Your task to perform on an android device: Go to Google maps Image 0: 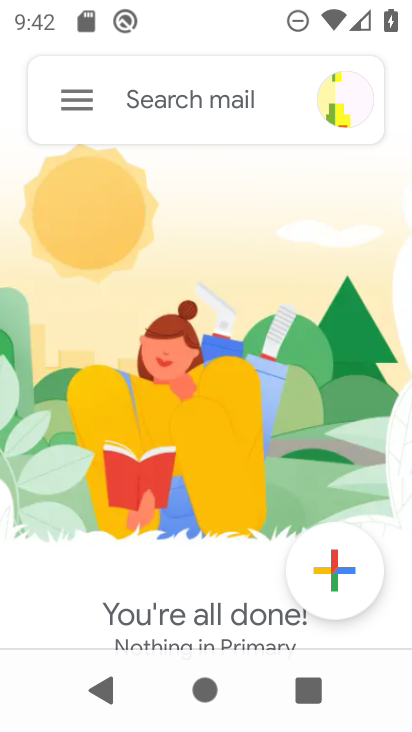
Step 0: click (370, 15)
Your task to perform on an android device: Go to Google maps Image 1: 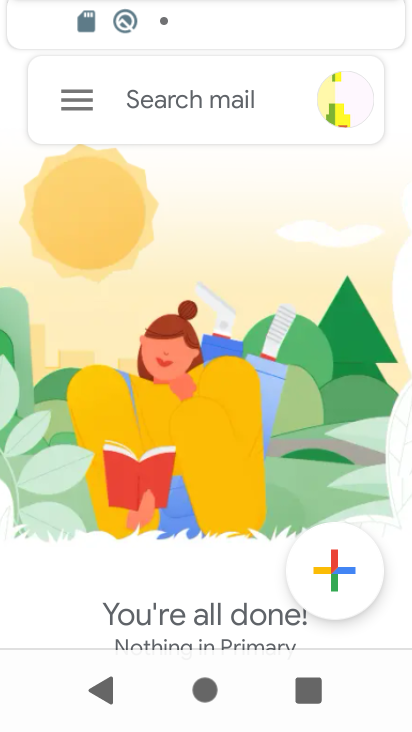
Step 1: press home button
Your task to perform on an android device: Go to Google maps Image 2: 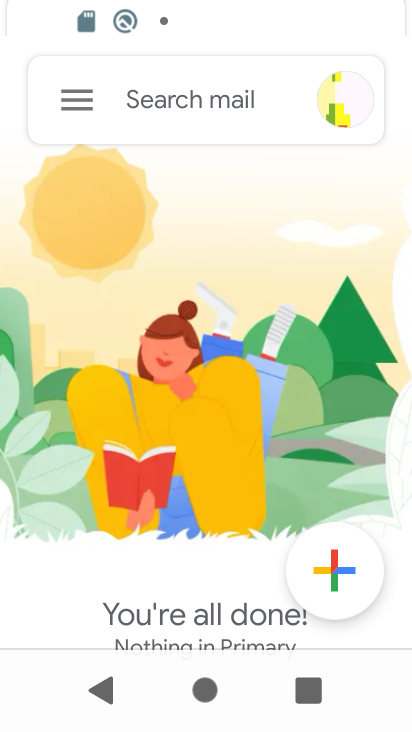
Step 2: drag from (370, 15) to (366, 659)
Your task to perform on an android device: Go to Google maps Image 3: 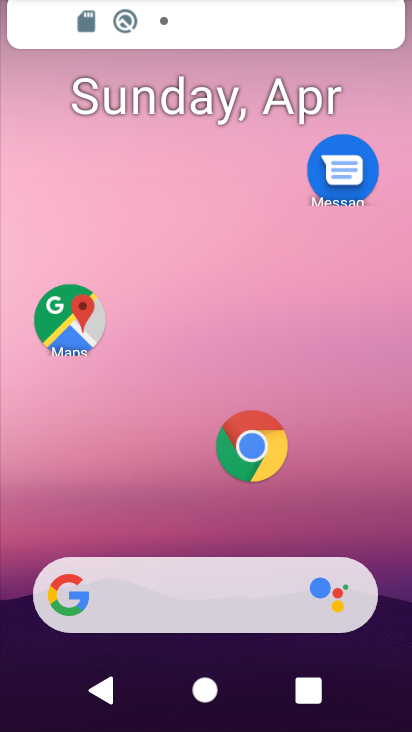
Step 3: drag from (240, 364) to (300, 211)
Your task to perform on an android device: Go to Google maps Image 4: 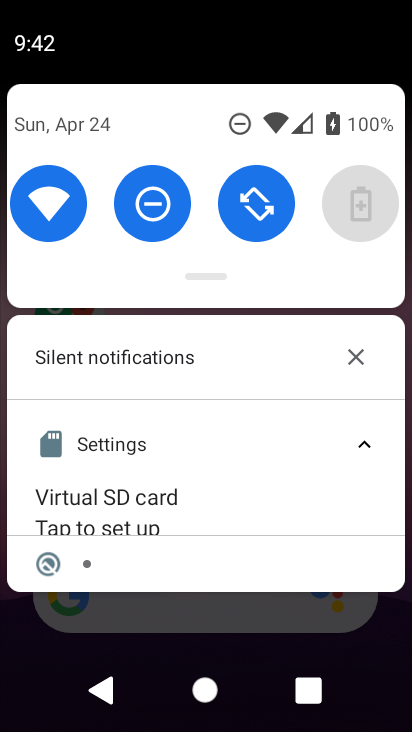
Step 4: press back button
Your task to perform on an android device: Go to Google maps Image 5: 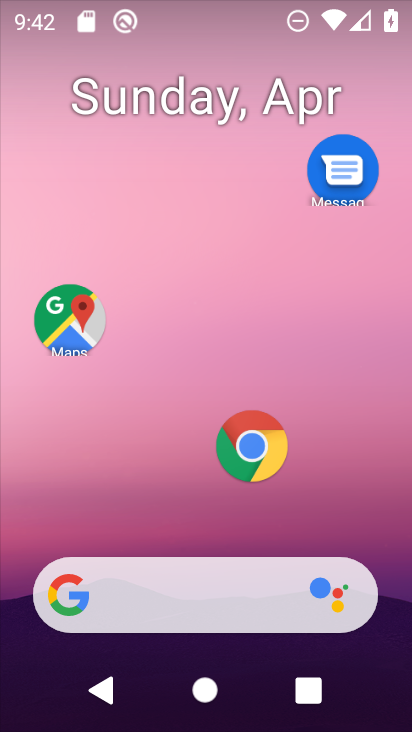
Step 5: click (74, 300)
Your task to perform on an android device: Go to Google maps Image 6: 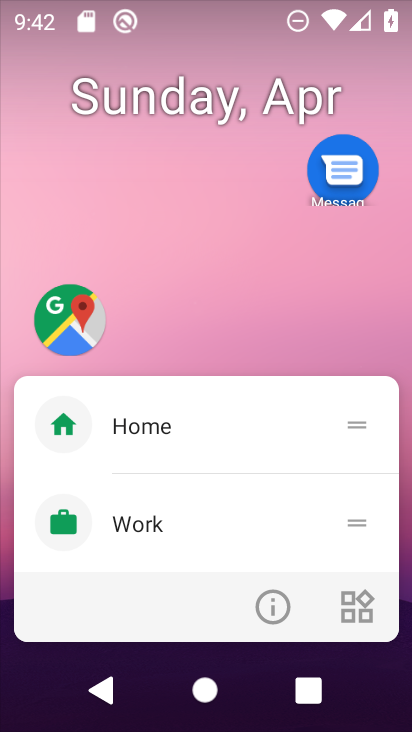
Step 6: click (270, 580)
Your task to perform on an android device: Go to Google maps Image 7: 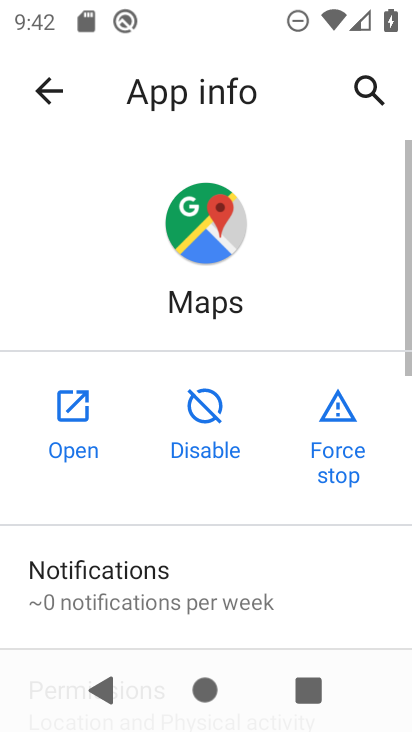
Step 7: click (82, 440)
Your task to perform on an android device: Go to Google maps Image 8: 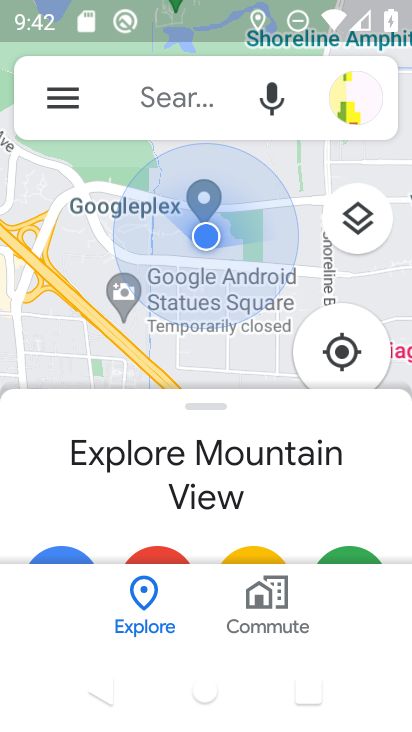
Step 8: task complete